Your task to perform on an android device: Go to settings Image 0: 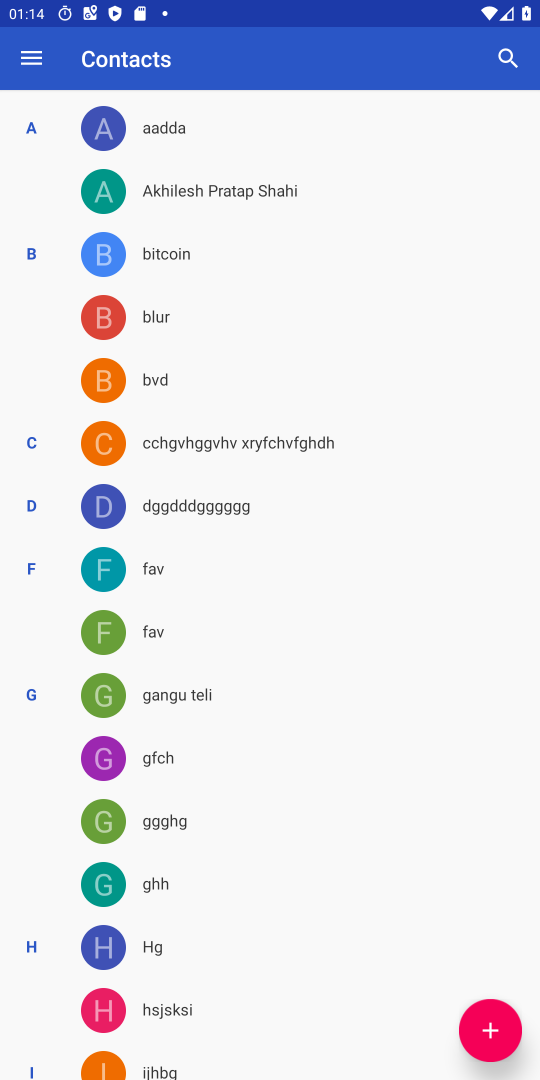
Step 0: press home button
Your task to perform on an android device: Go to settings Image 1: 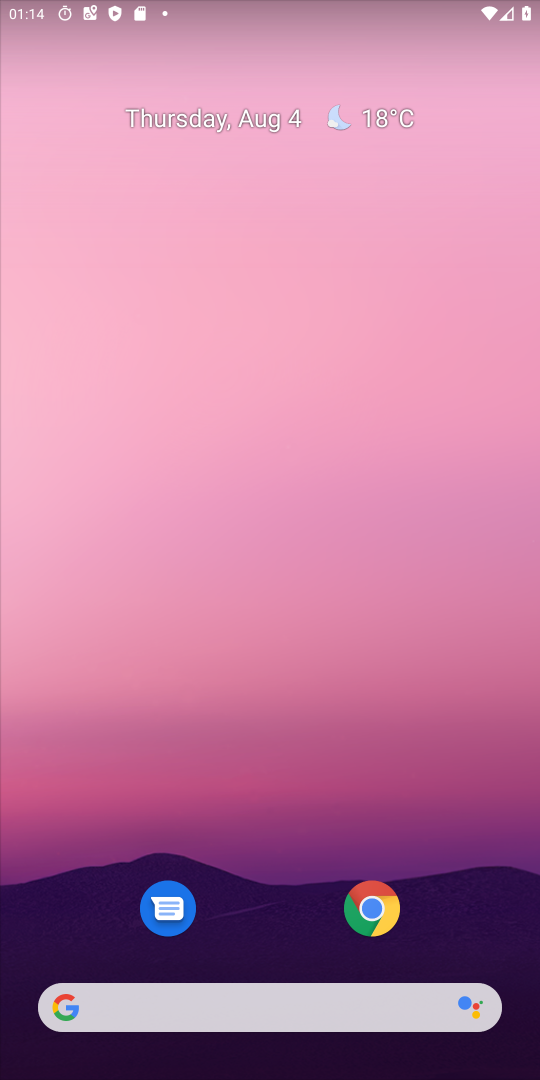
Step 1: drag from (312, 1060) to (206, 392)
Your task to perform on an android device: Go to settings Image 2: 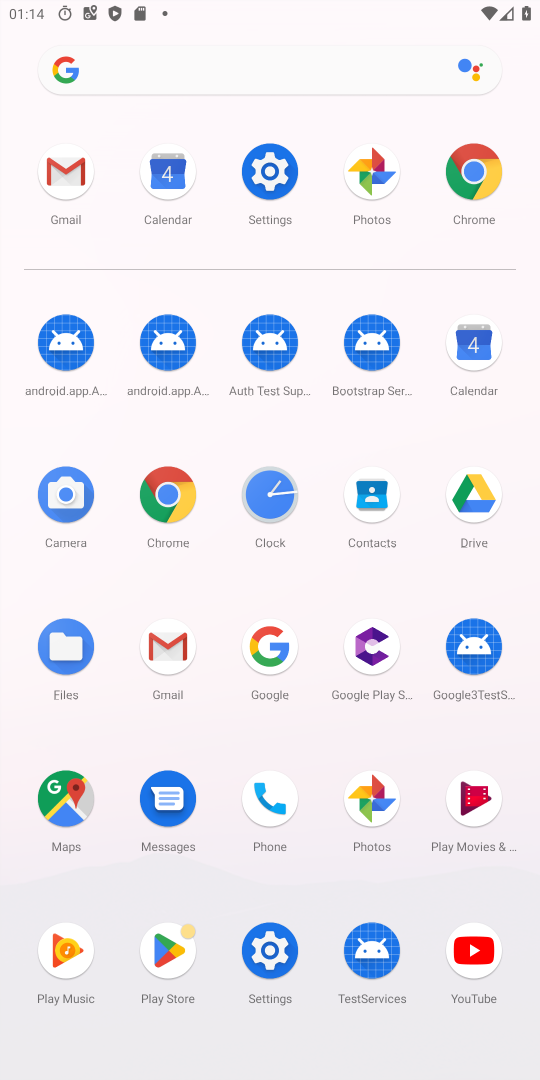
Step 2: click (254, 952)
Your task to perform on an android device: Go to settings Image 3: 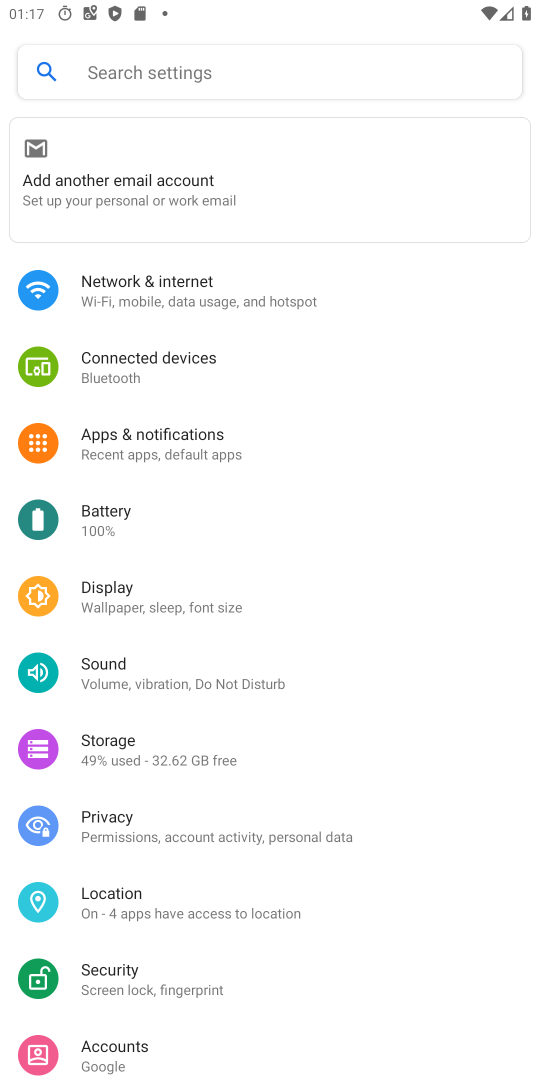
Step 3: task complete